Your task to perform on an android device: turn notification dots off Image 0: 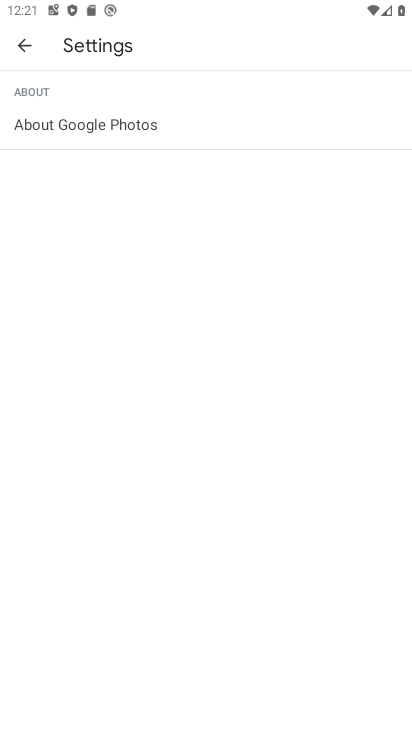
Step 0: press home button
Your task to perform on an android device: turn notification dots off Image 1: 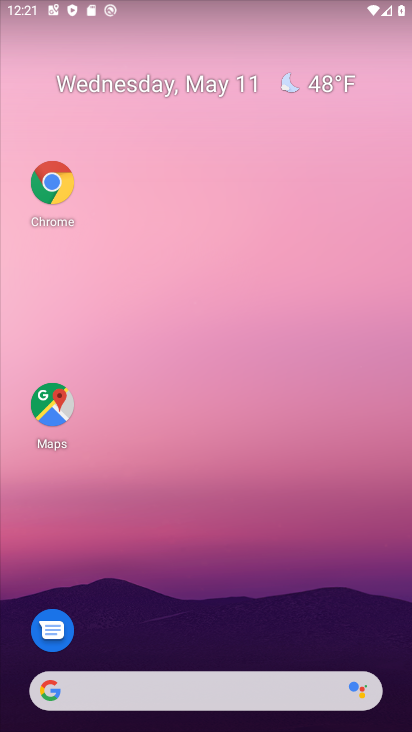
Step 1: drag from (188, 668) to (381, 19)
Your task to perform on an android device: turn notification dots off Image 2: 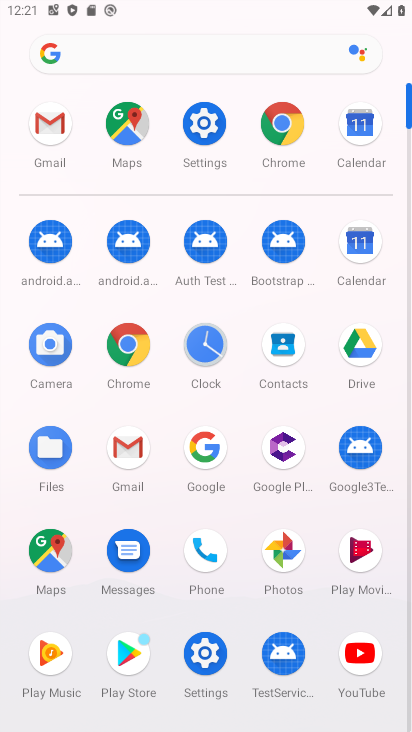
Step 2: click (198, 635)
Your task to perform on an android device: turn notification dots off Image 3: 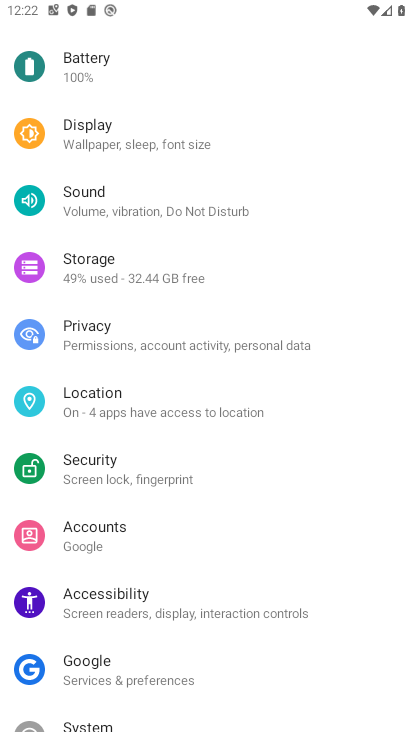
Step 3: drag from (157, 256) to (145, 467)
Your task to perform on an android device: turn notification dots off Image 4: 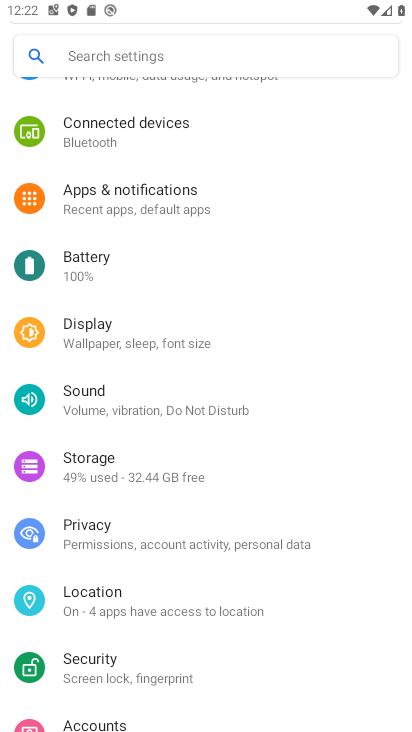
Step 4: click (158, 190)
Your task to perform on an android device: turn notification dots off Image 5: 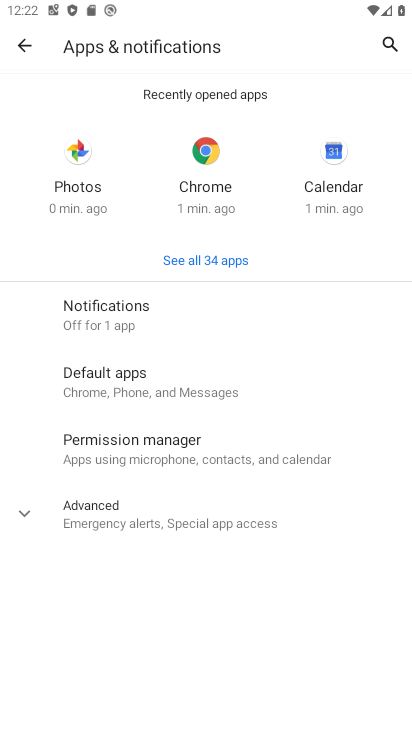
Step 5: click (117, 314)
Your task to perform on an android device: turn notification dots off Image 6: 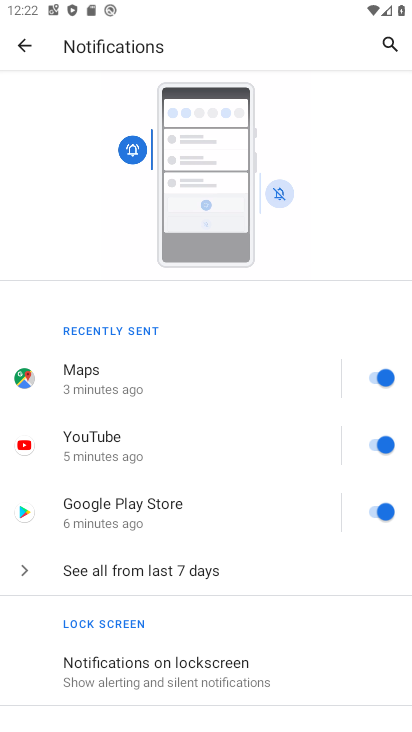
Step 6: drag from (147, 673) to (102, 235)
Your task to perform on an android device: turn notification dots off Image 7: 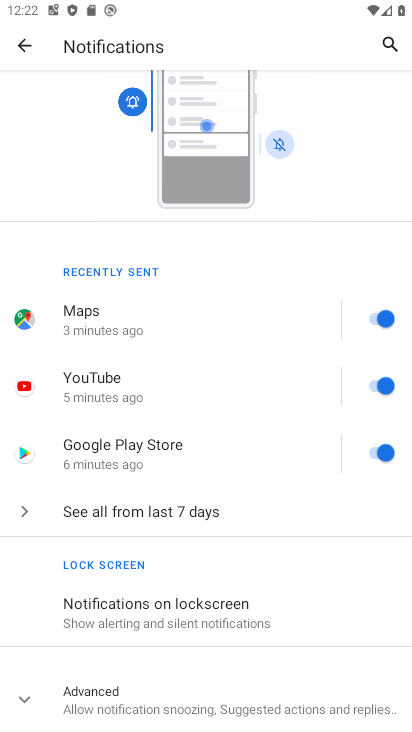
Step 7: click (145, 688)
Your task to perform on an android device: turn notification dots off Image 8: 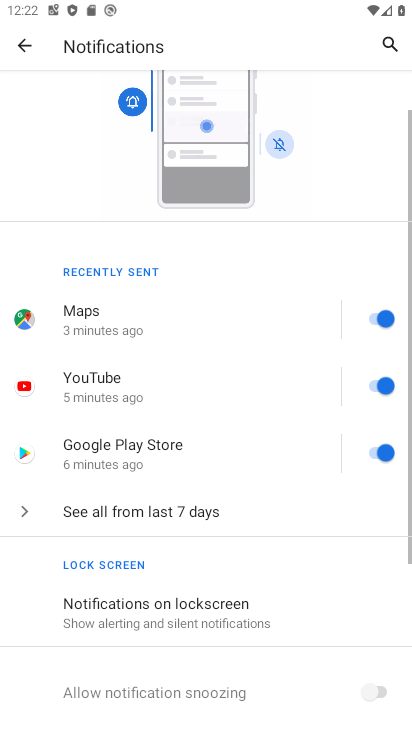
Step 8: drag from (145, 688) to (85, 246)
Your task to perform on an android device: turn notification dots off Image 9: 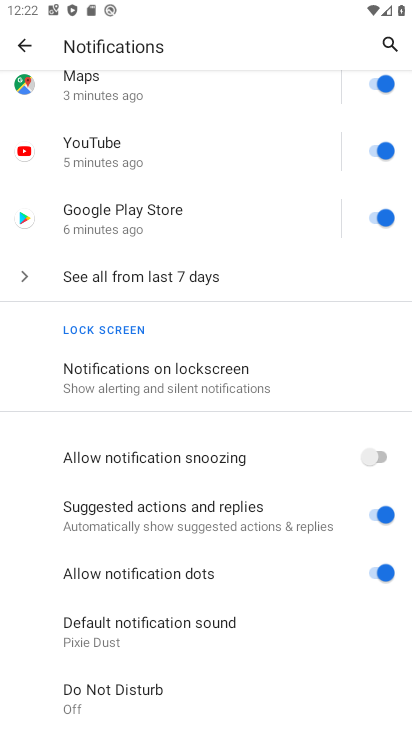
Step 9: click (365, 567)
Your task to perform on an android device: turn notification dots off Image 10: 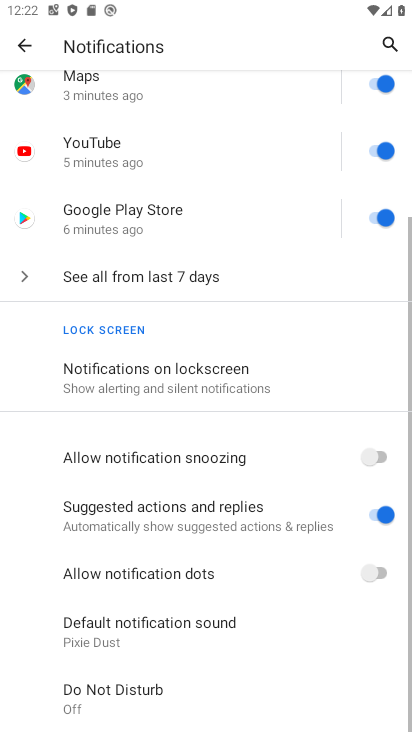
Step 10: task complete